Your task to perform on an android device: open app "LinkedIn" (install if not already installed), go to login, and select forgot password Image 0: 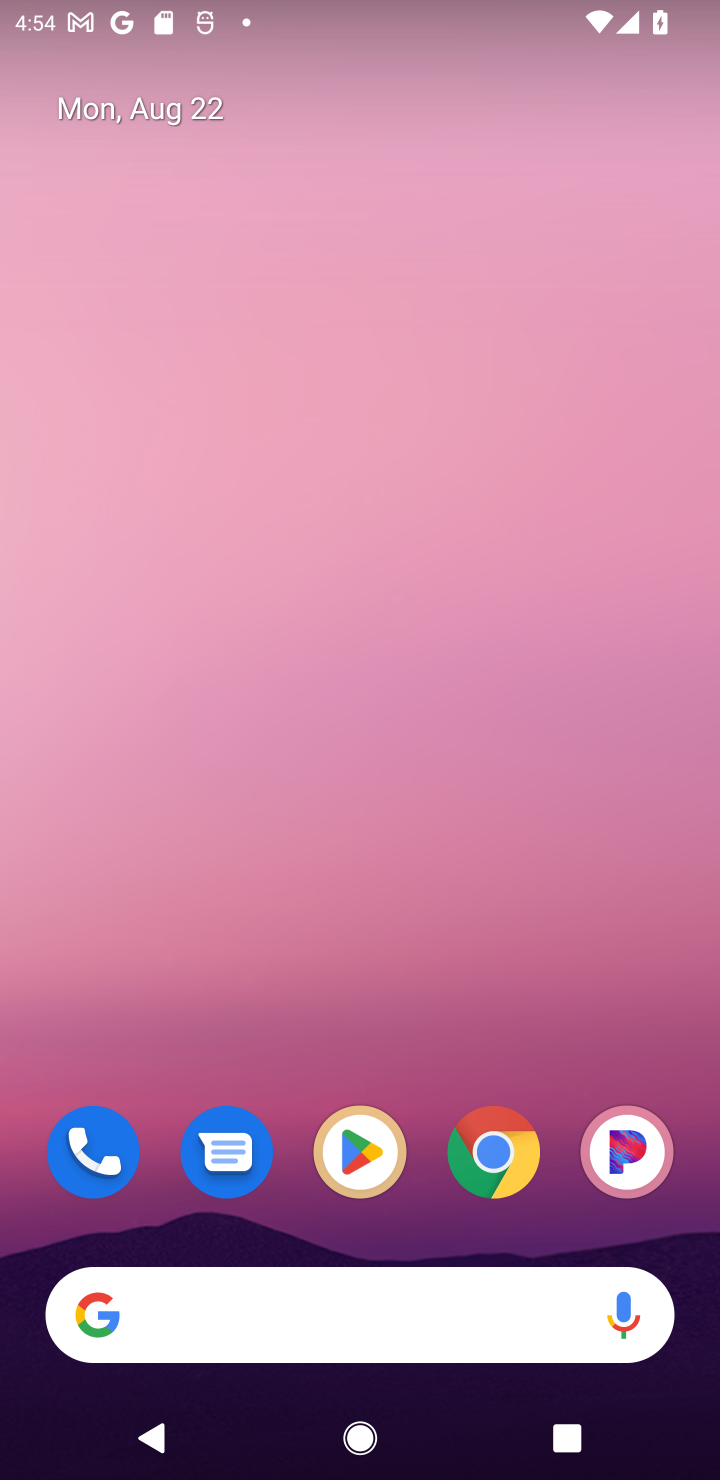
Step 0: click (337, 1139)
Your task to perform on an android device: open app "LinkedIn" (install if not already installed), go to login, and select forgot password Image 1: 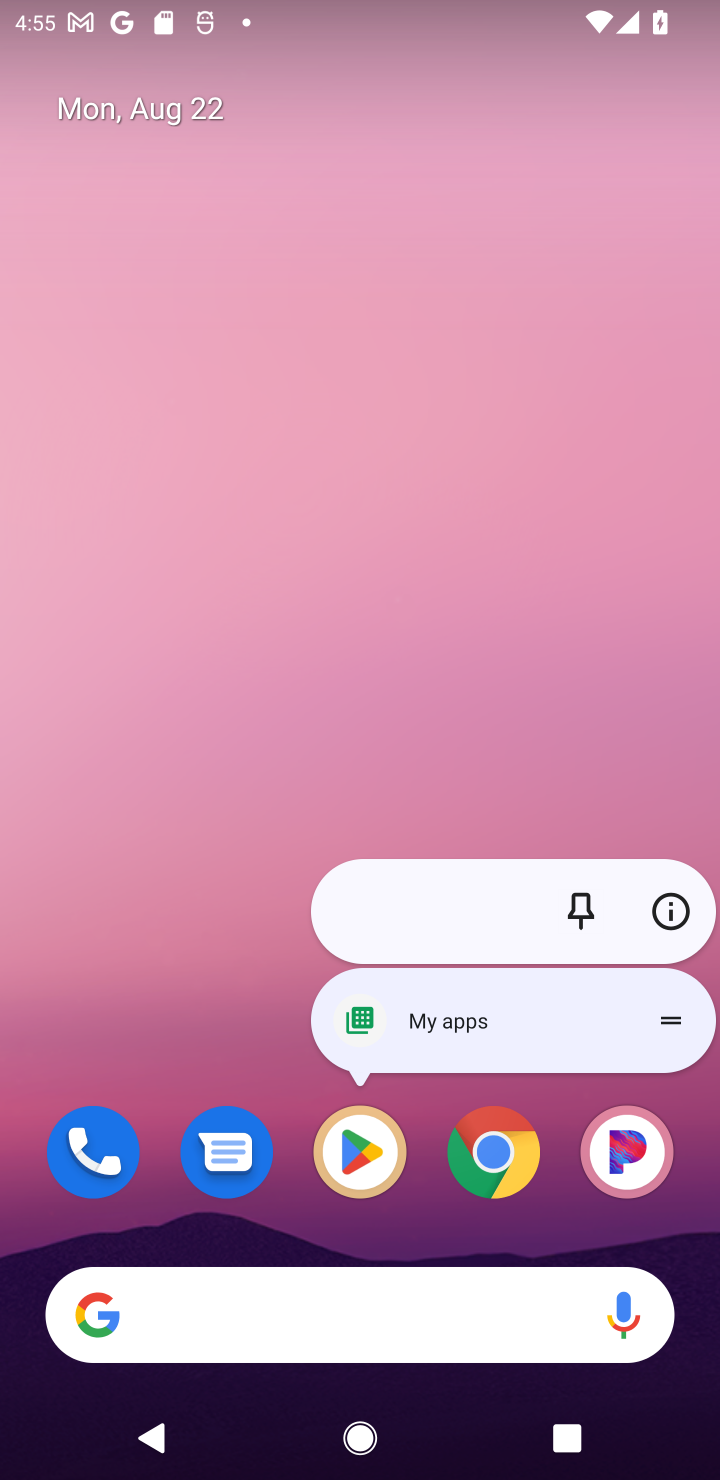
Step 1: click (379, 1174)
Your task to perform on an android device: open app "LinkedIn" (install if not already installed), go to login, and select forgot password Image 2: 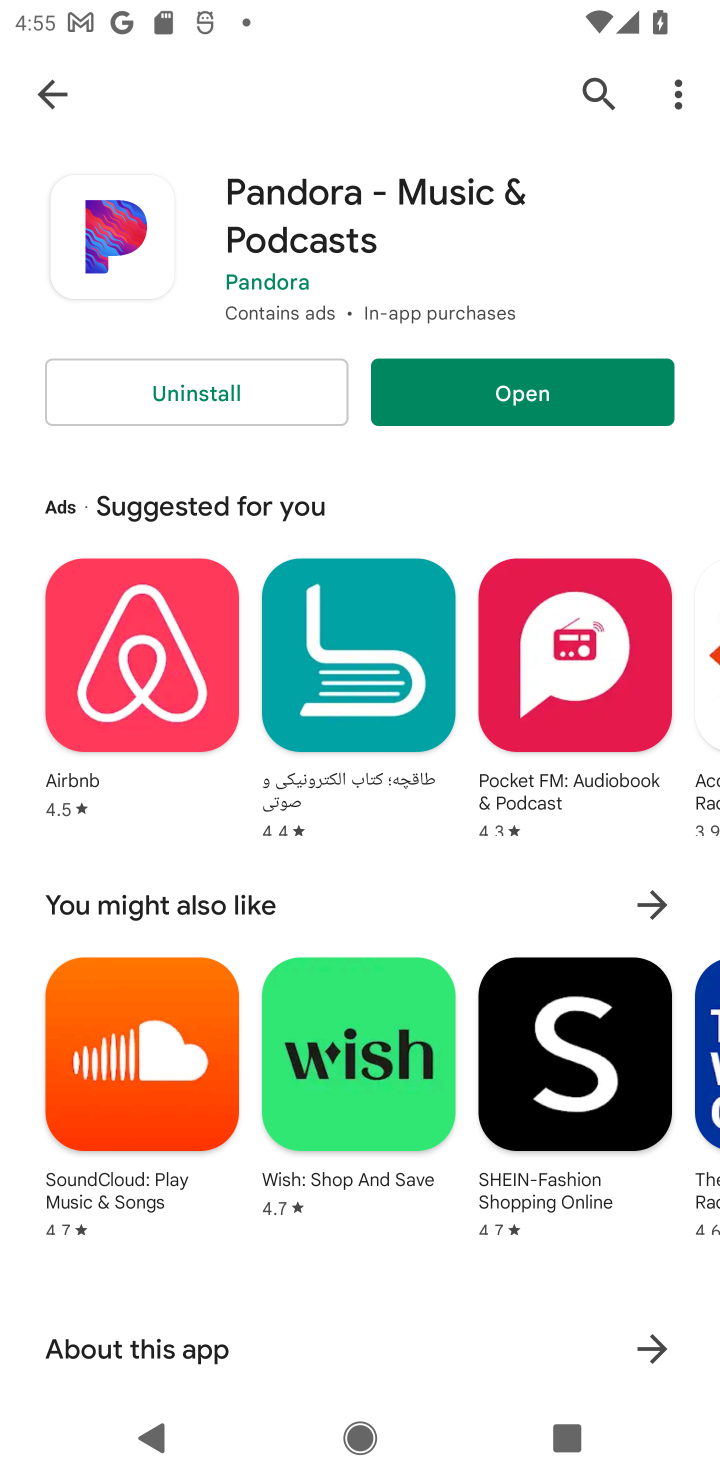
Step 2: click (15, 96)
Your task to perform on an android device: open app "LinkedIn" (install if not already installed), go to login, and select forgot password Image 3: 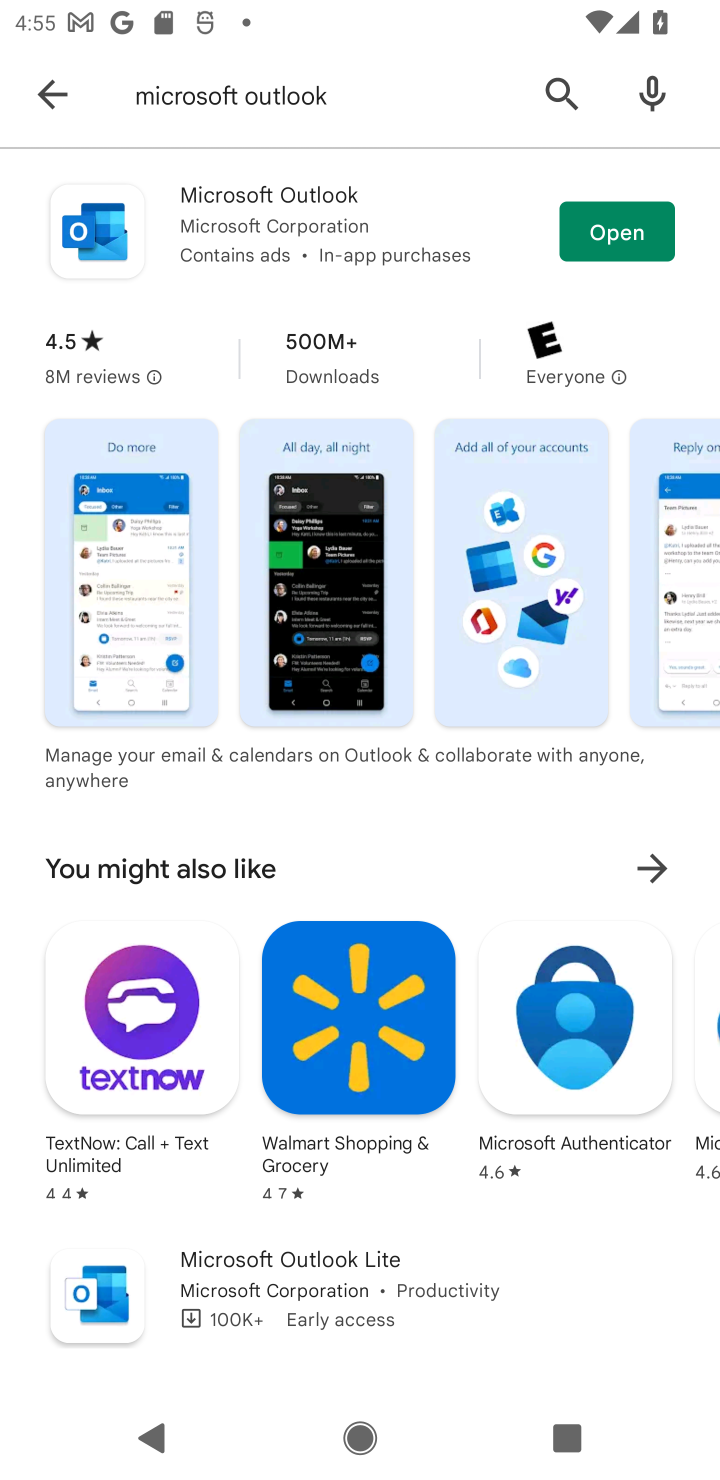
Step 3: click (58, 80)
Your task to perform on an android device: open app "LinkedIn" (install if not already installed), go to login, and select forgot password Image 4: 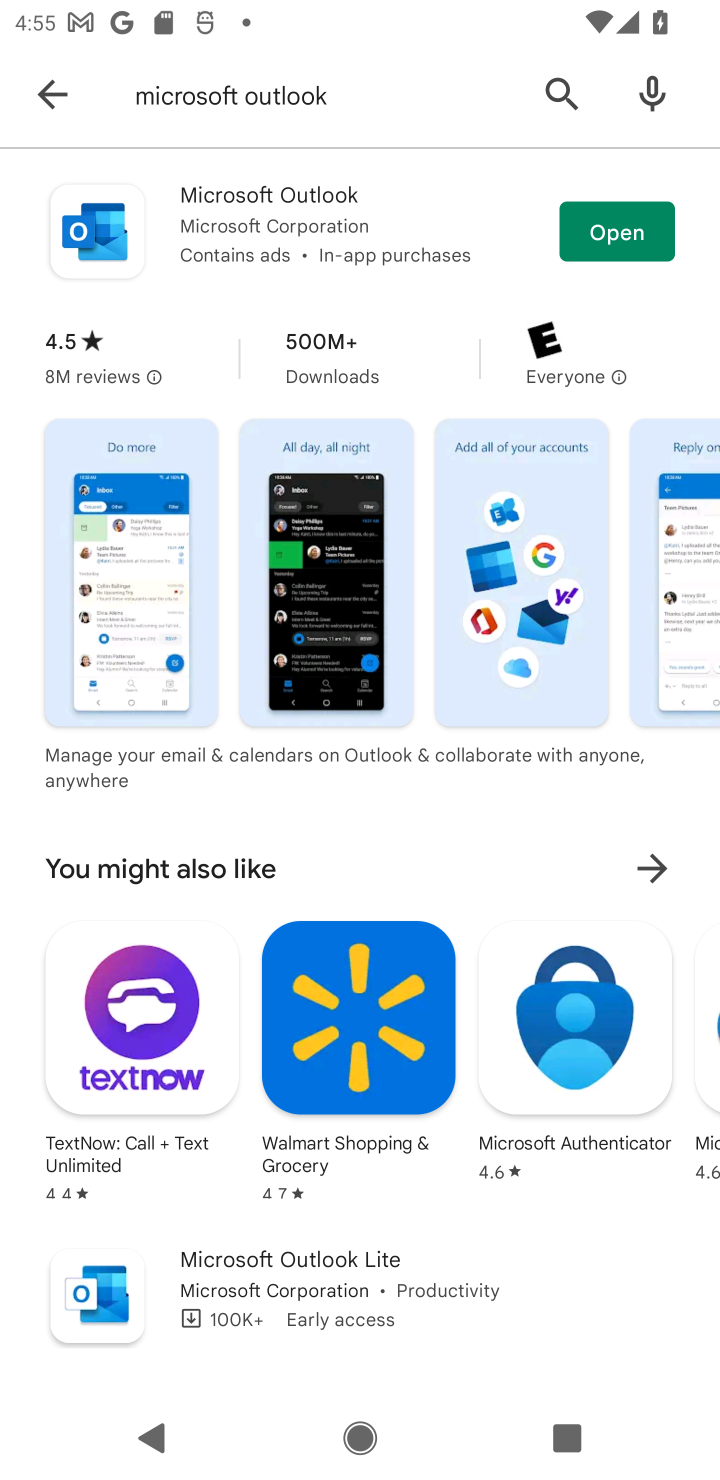
Step 4: click (56, 82)
Your task to perform on an android device: open app "LinkedIn" (install if not already installed), go to login, and select forgot password Image 5: 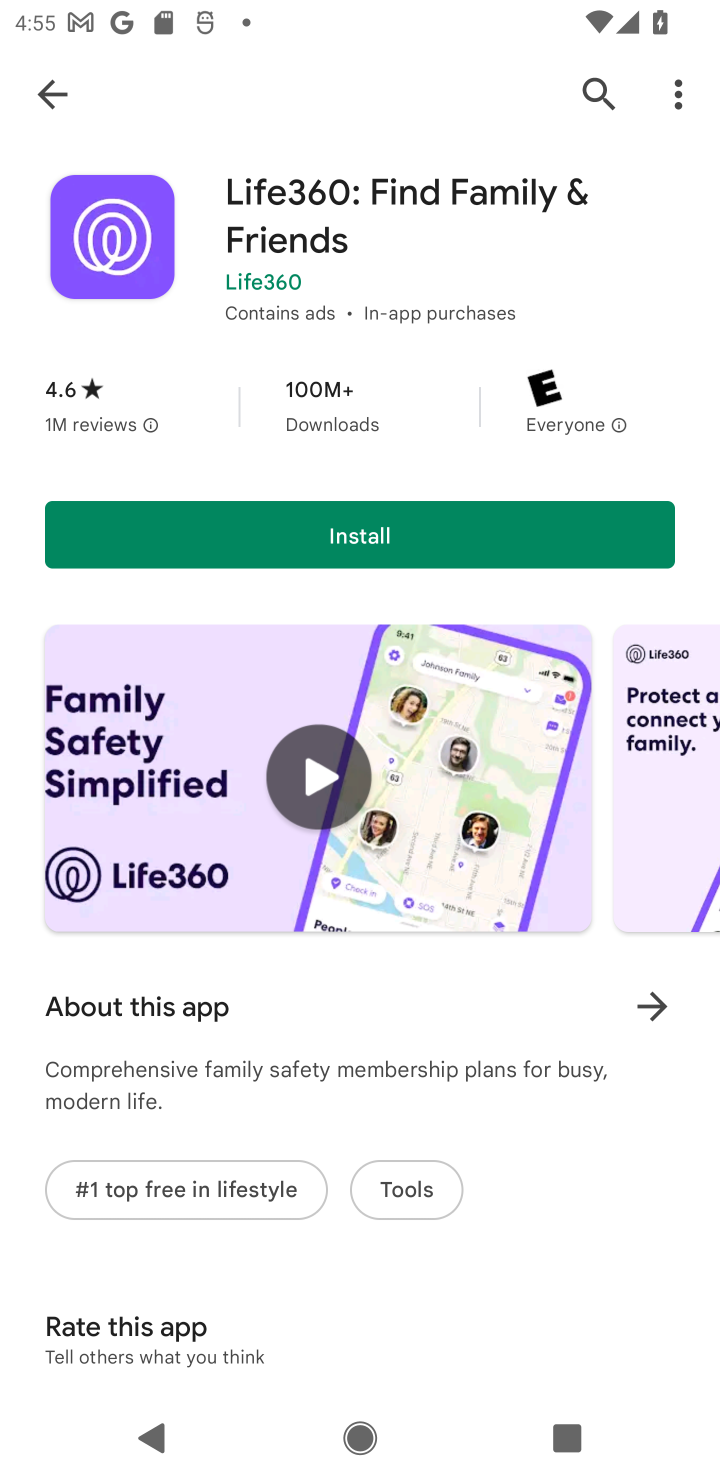
Step 5: click (49, 75)
Your task to perform on an android device: open app "LinkedIn" (install if not already installed), go to login, and select forgot password Image 6: 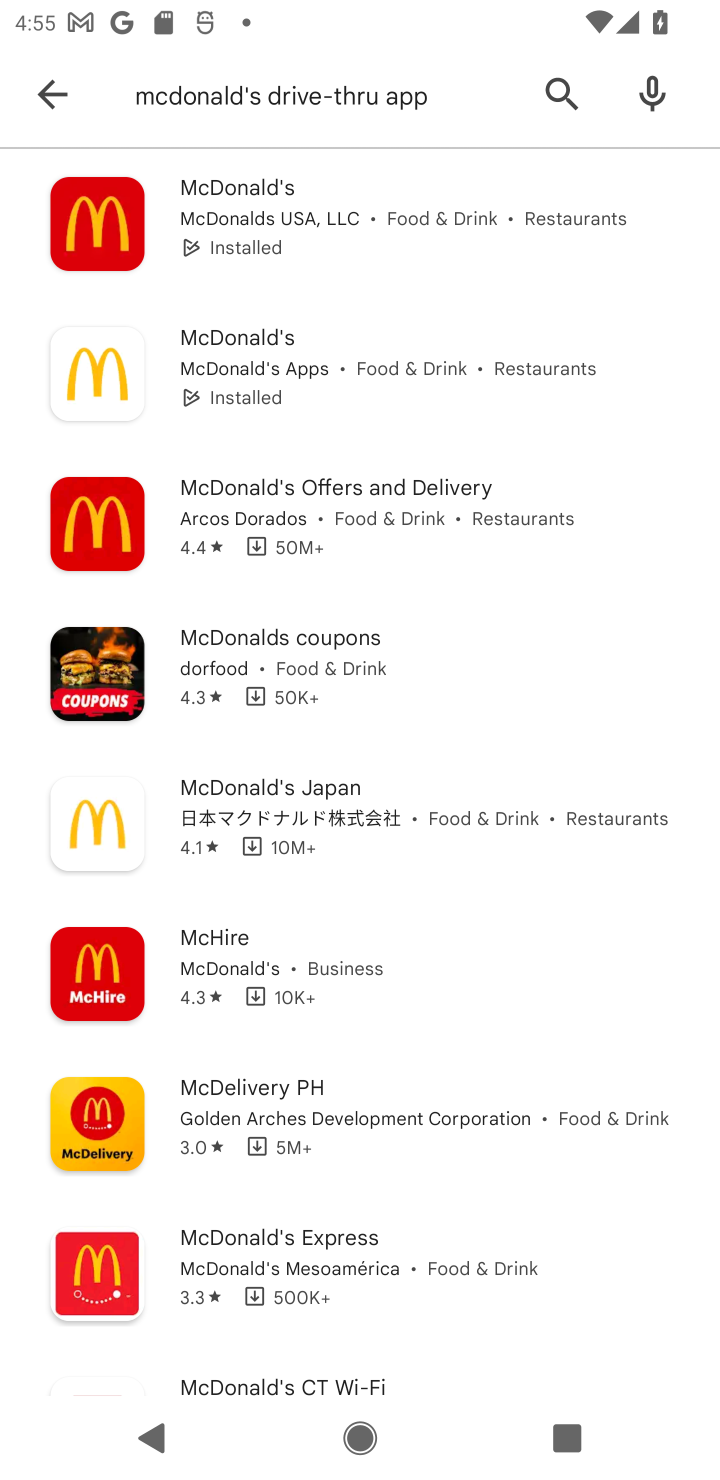
Step 6: click (553, 111)
Your task to perform on an android device: open app "LinkedIn" (install if not already installed), go to login, and select forgot password Image 7: 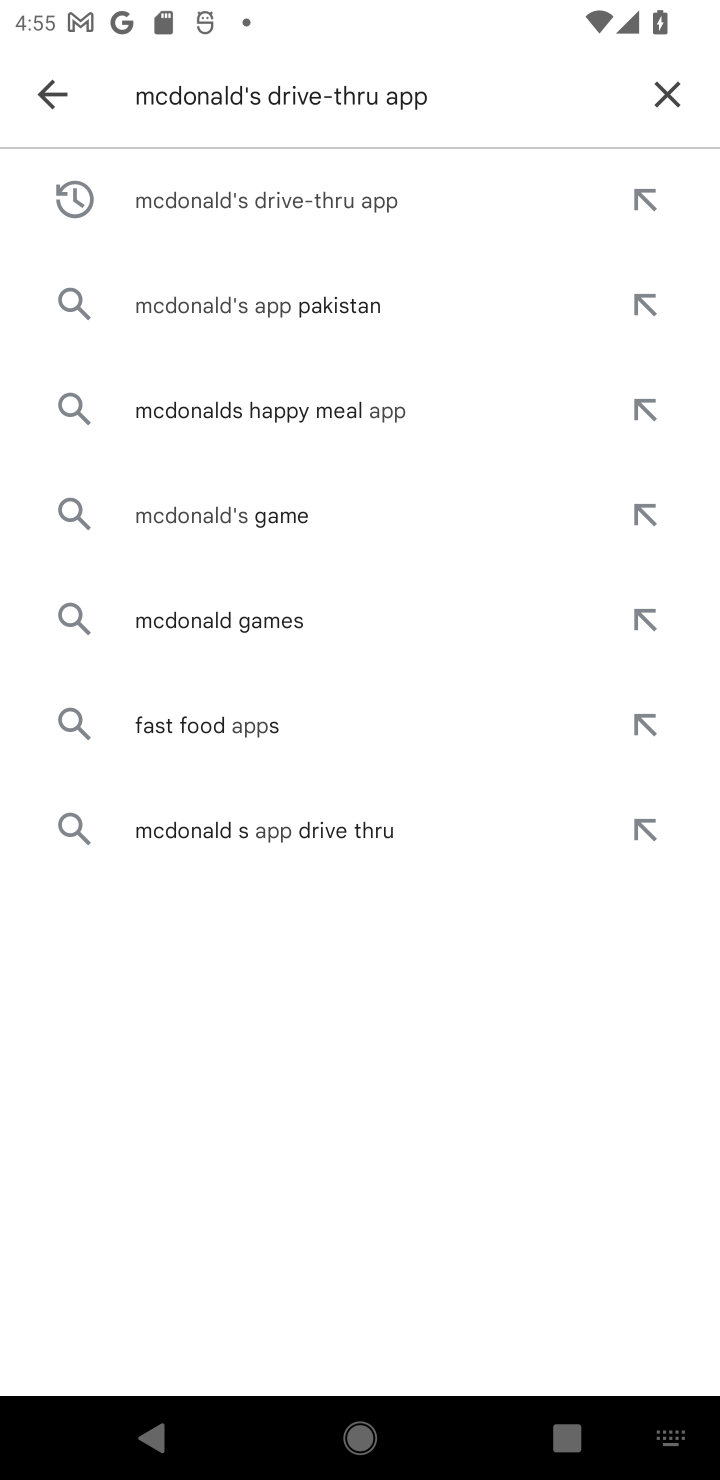
Step 7: click (664, 98)
Your task to perform on an android device: open app "LinkedIn" (install if not already installed), go to login, and select forgot password Image 8: 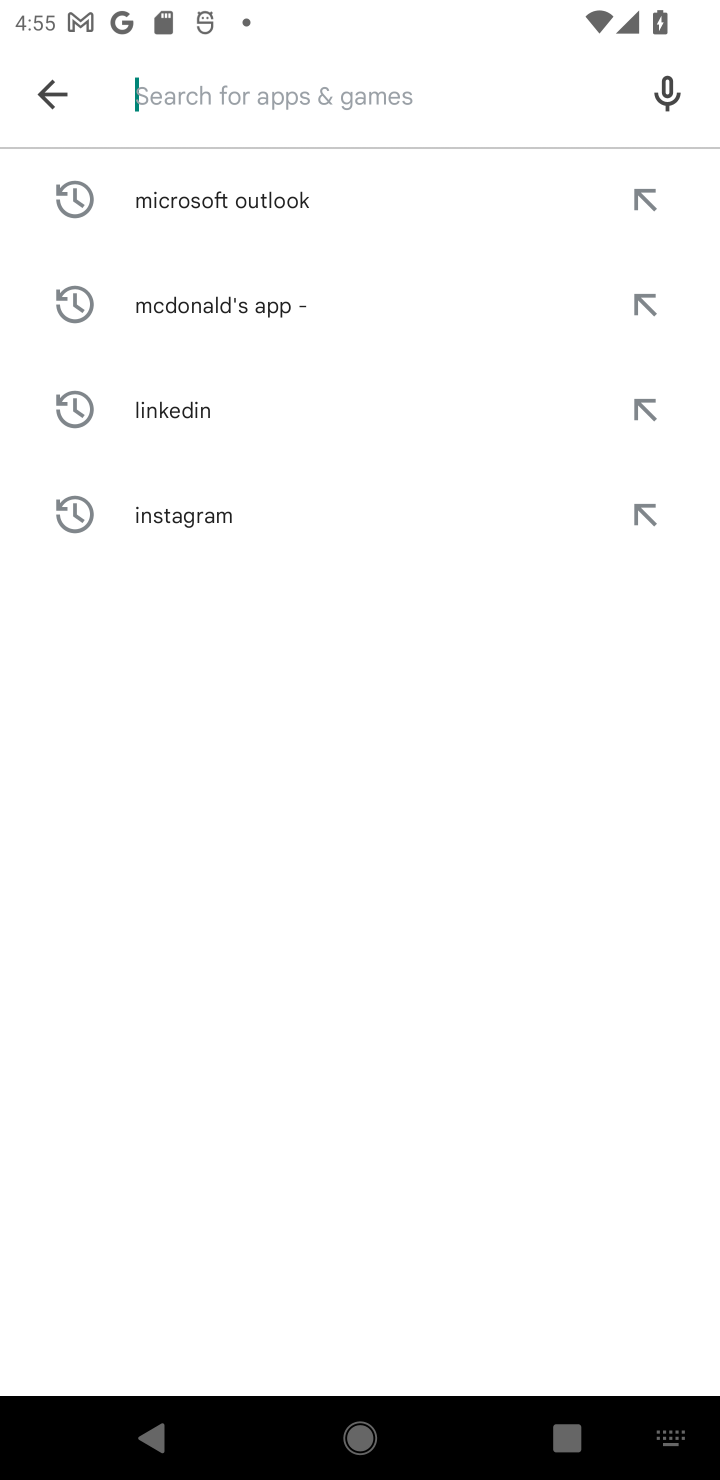
Step 8: type "LinkedIn"
Your task to perform on an android device: open app "LinkedIn" (install if not already installed), go to login, and select forgot password Image 9: 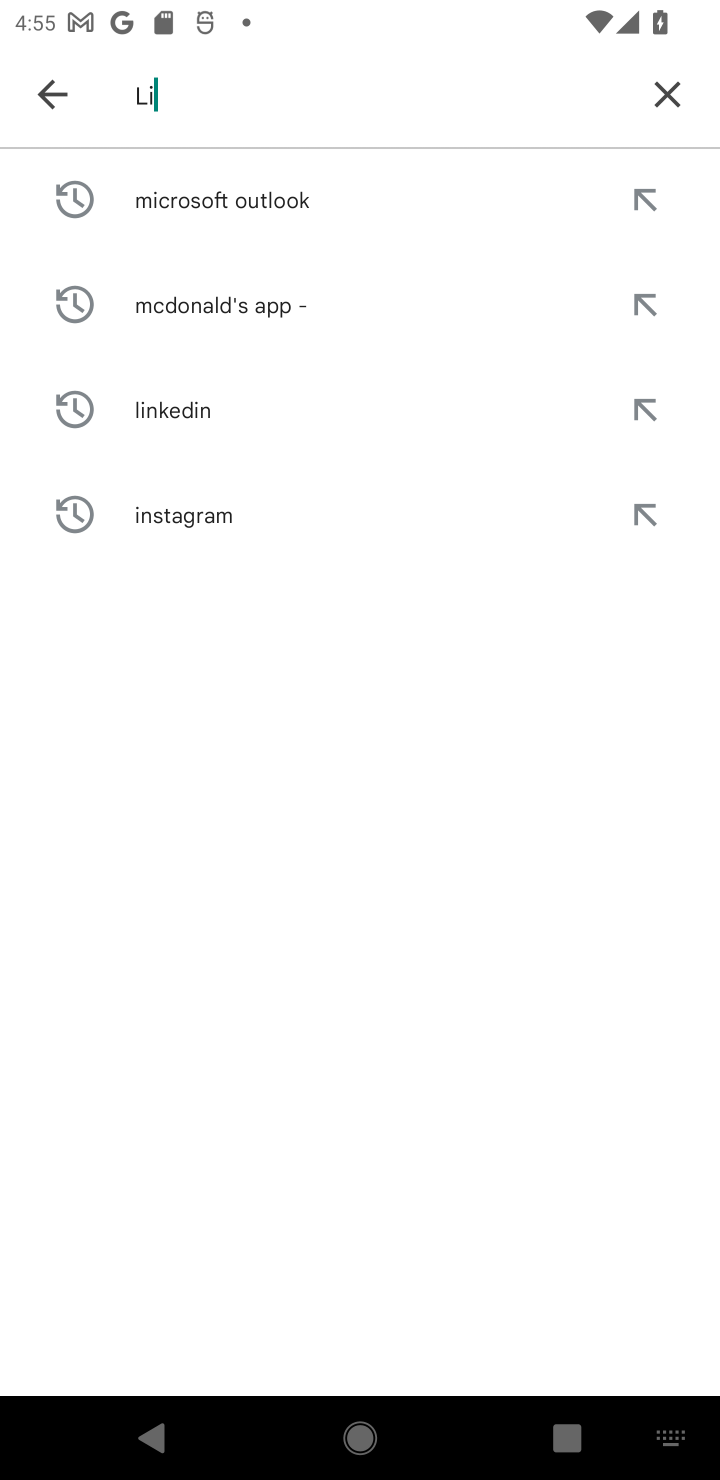
Step 9: type ""
Your task to perform on an android device: open app "LinkedIn" (install if not already installed), go to login, and select forgot password Image 10: 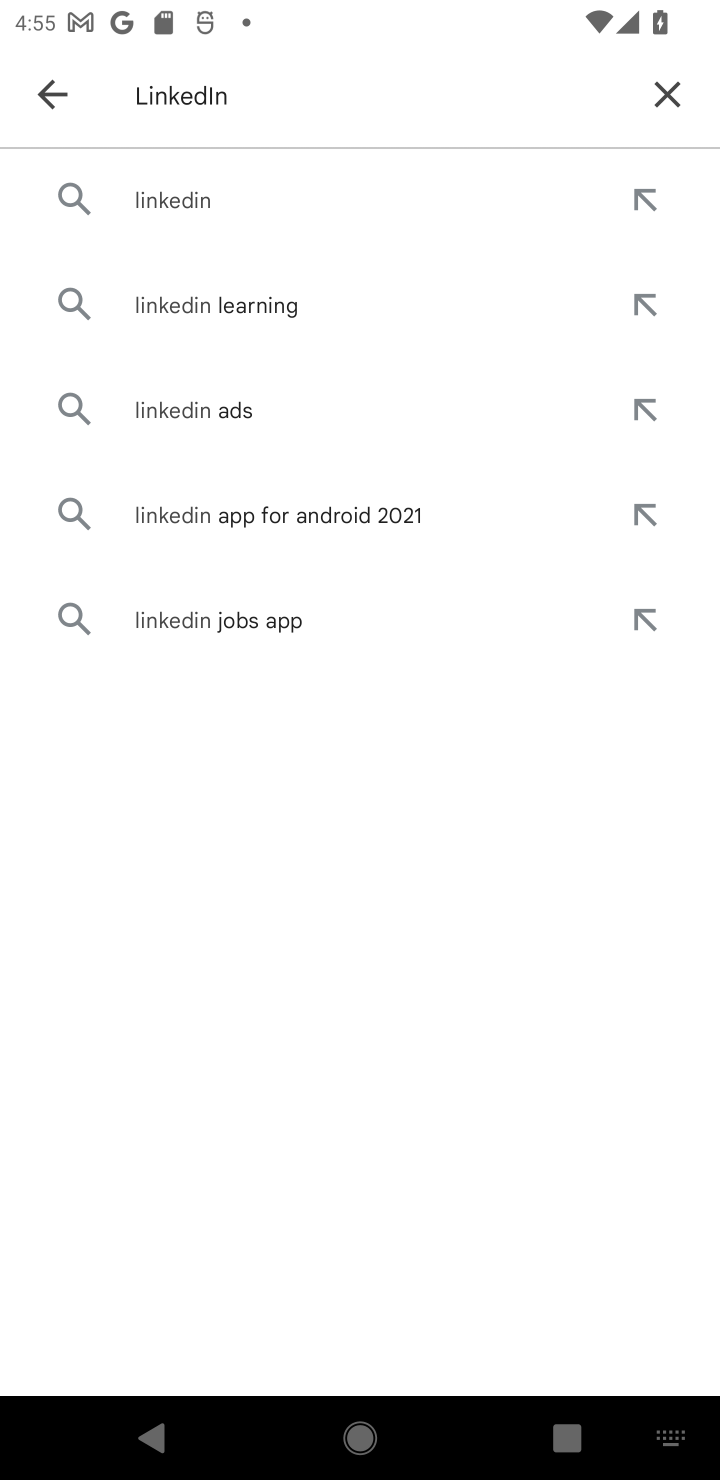
Step 10: click (197, 209)
Your task to perform on an android device: open app "LinkedIn" (install if not already installed), go to login, and select forgot password Image 11: 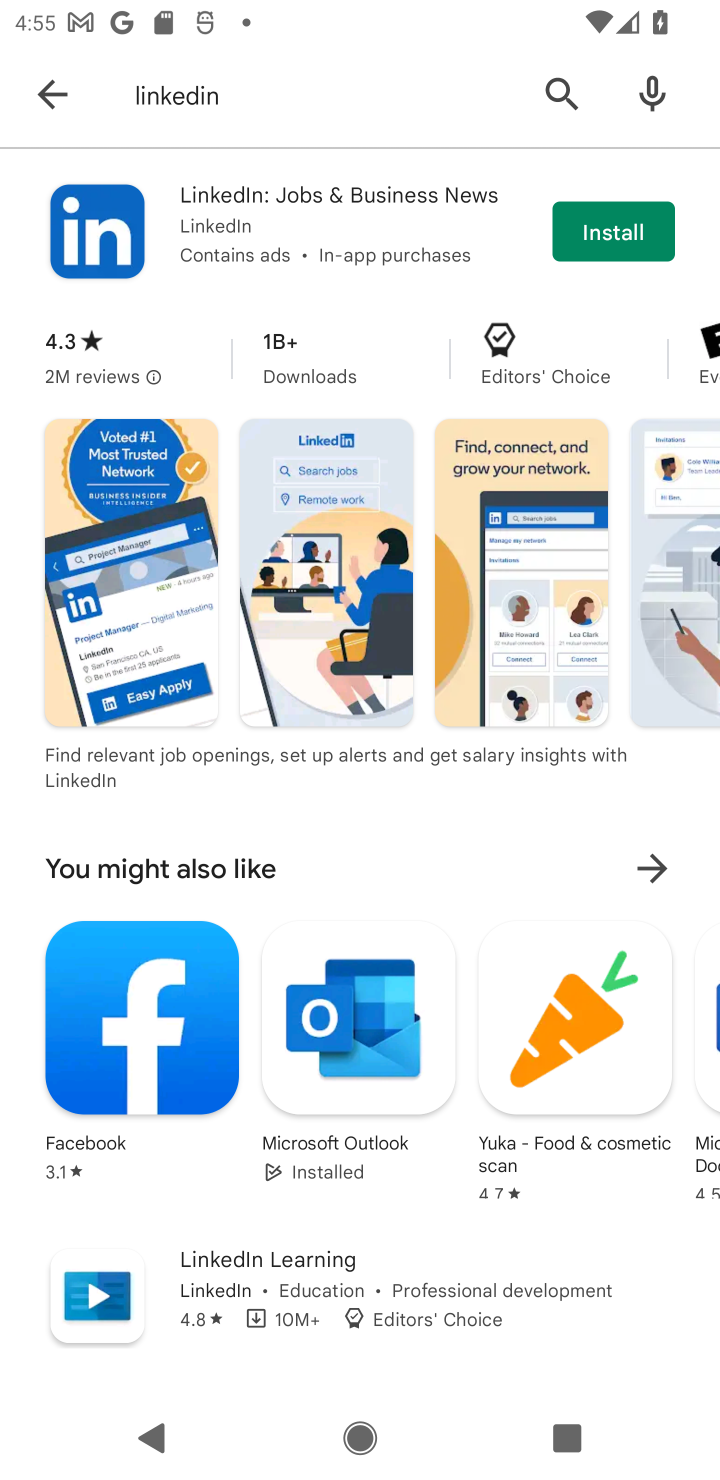
Step 11: click (656, 228)
Your task to perform on an android device: open app "LinkedIn" (install if not already installed), go to login, and select forgot password Image 12: 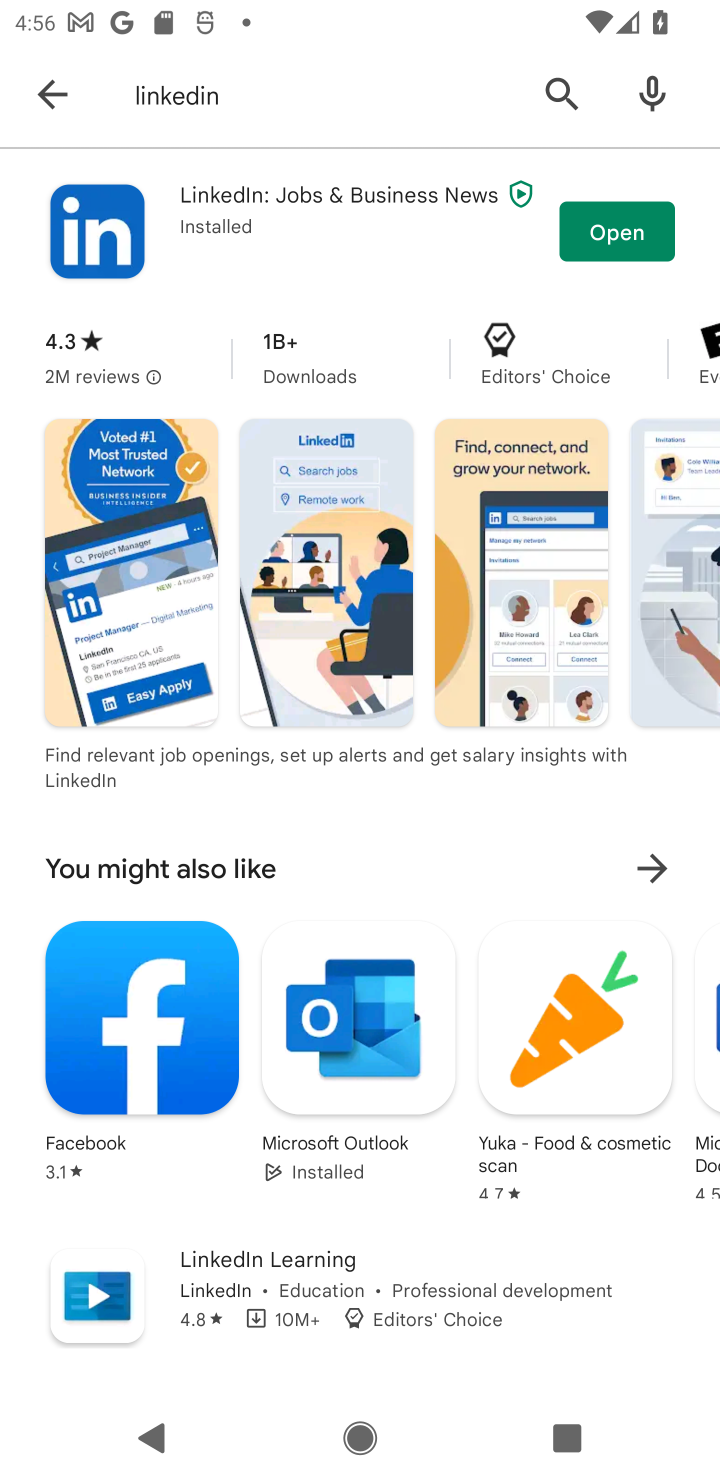
Step 12: click (620, 231)
Your task to perform on an android device: open app "LinkedIn" (install if not already installed), go to login, and select forgot password Image 13: 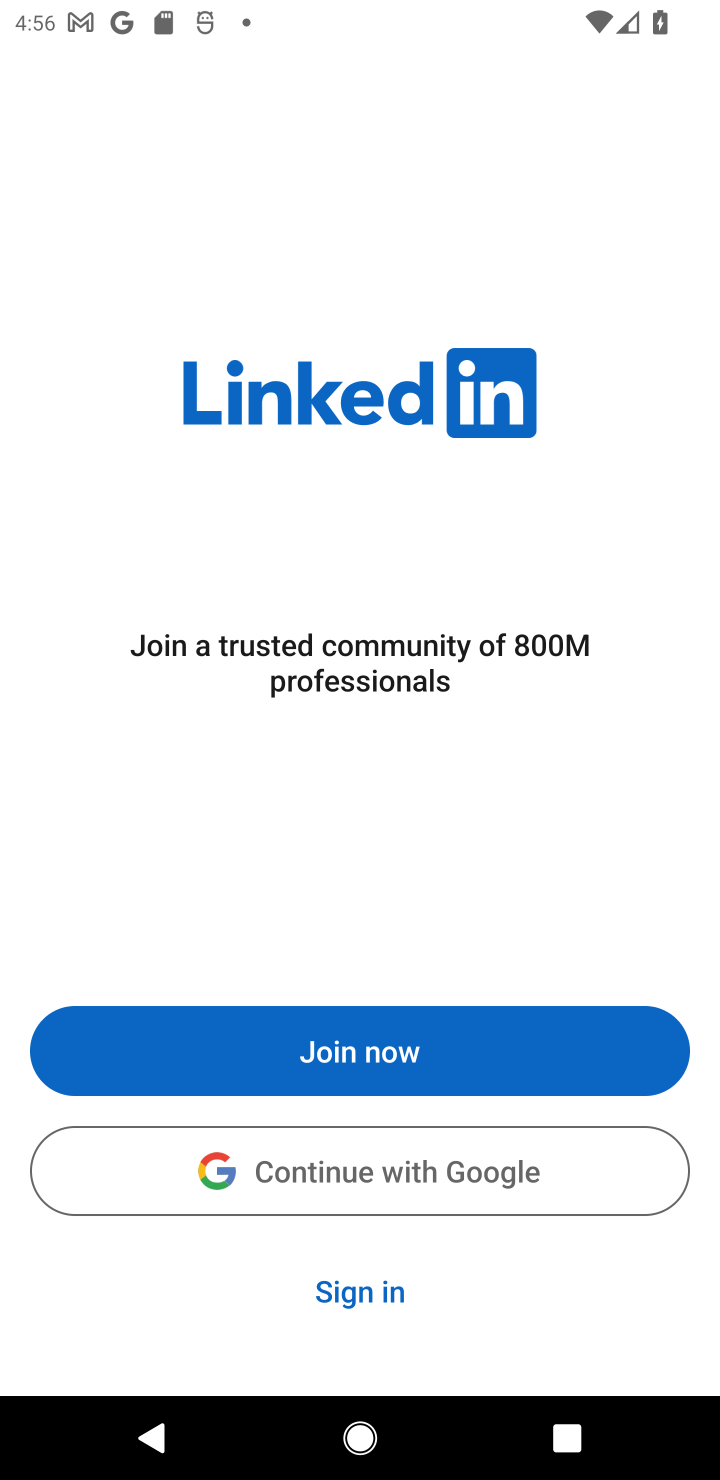
Step 13: click (394, 1294)
Your task to perform on an android device: open app "LinkedIn" (install if not already installed), go to login, and select forgot password Image 14: 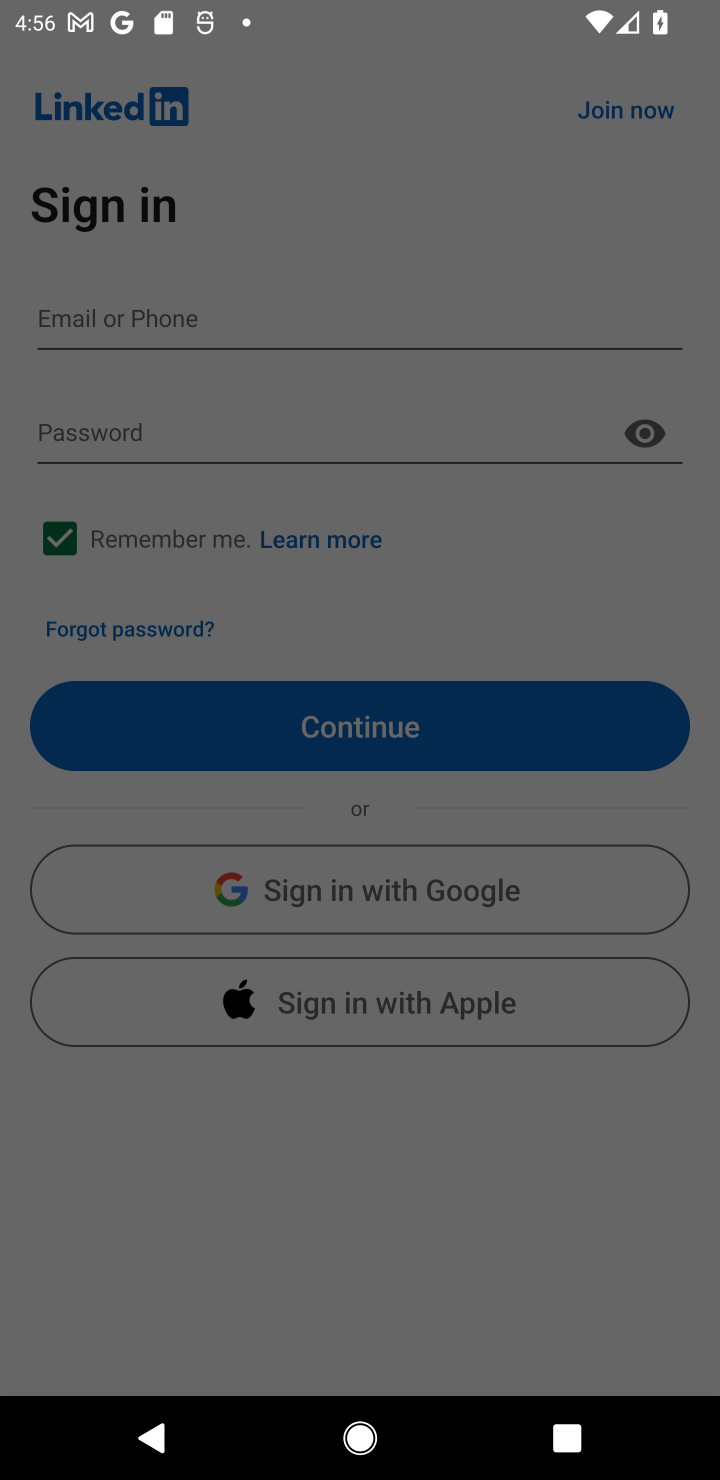
Step 14: click (94, 633)
Your task to perform on an android device: open app "LinkedIn" (install if not already installed), go to login, and select forgot password Image 15: 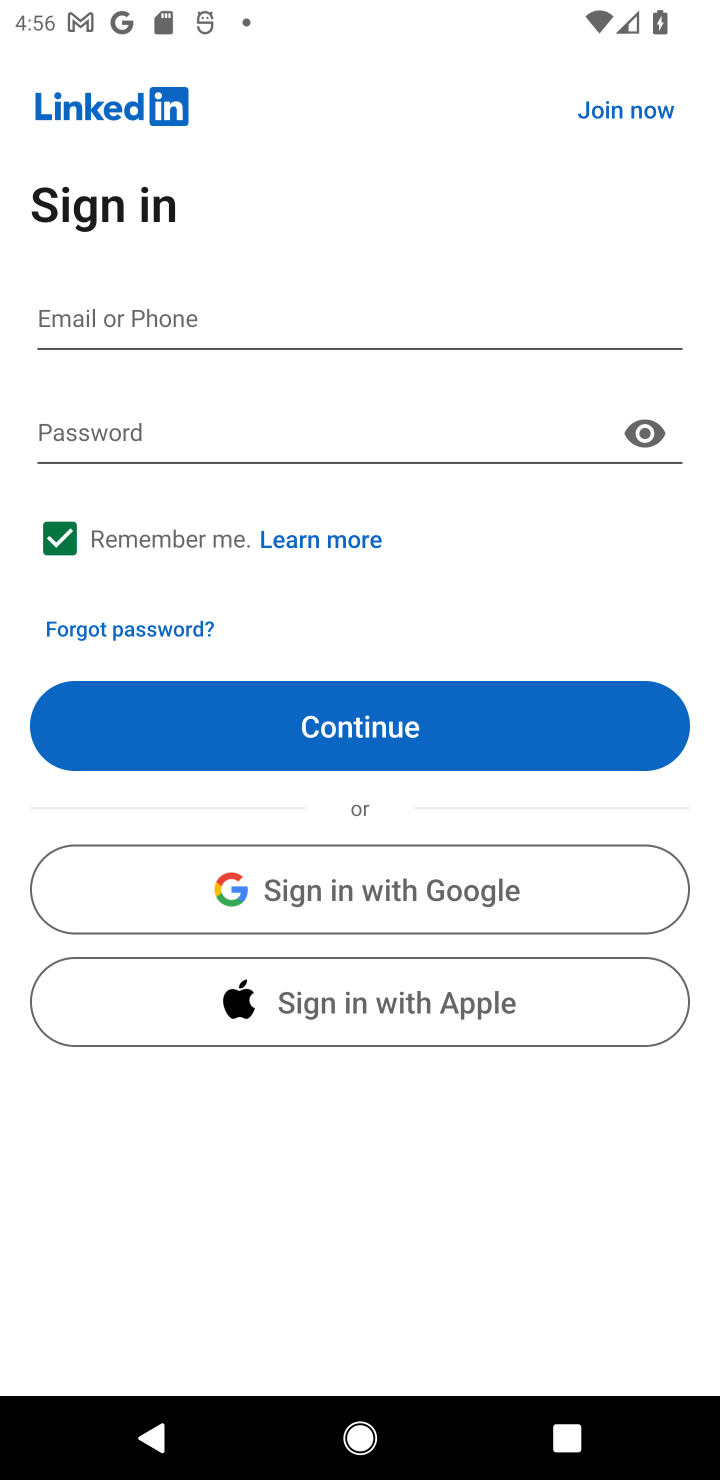
Step 15: click (150, 630)
Your task to perform on an android device: open app "LinkedIn" (install if not already installed), go to login, and select forgot password Image 16: 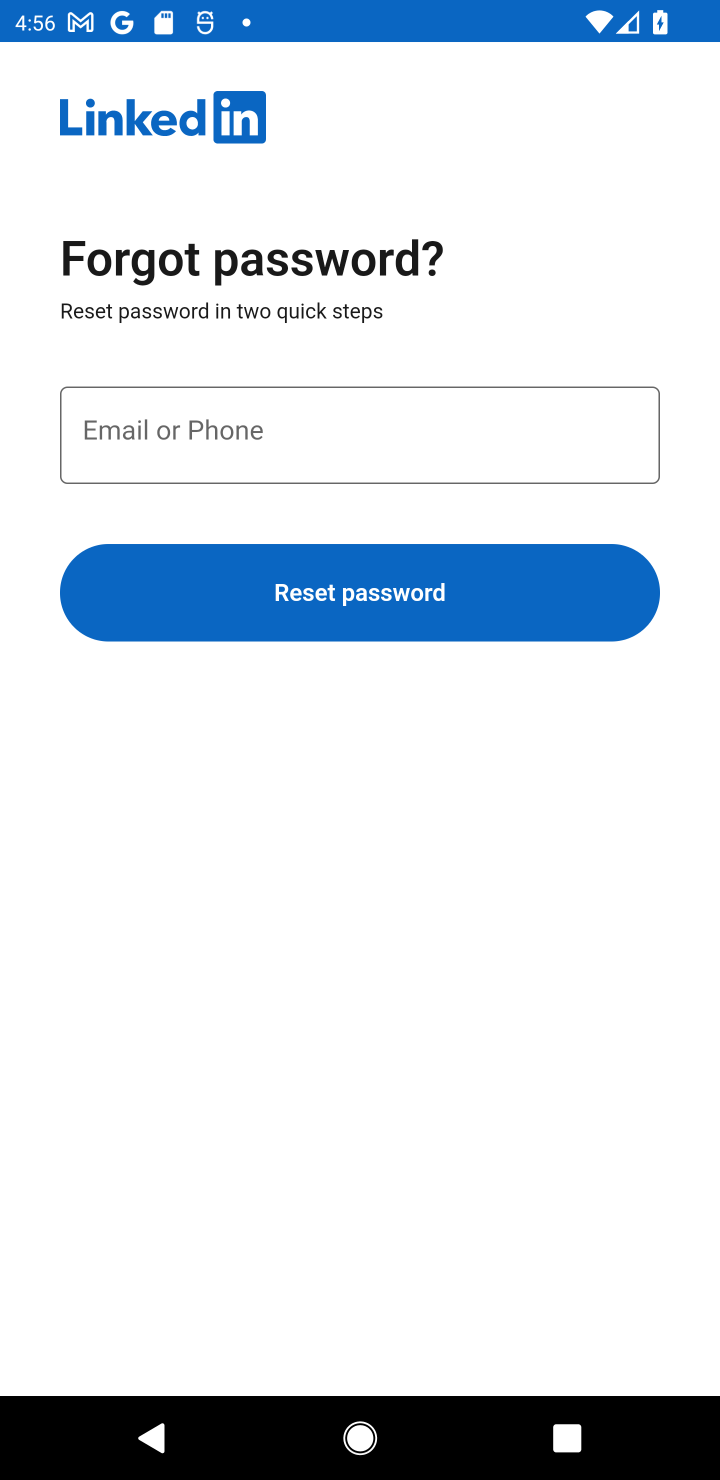
Step 16: task complete